Your task to perform on an android device: What's the weather? Image 0: 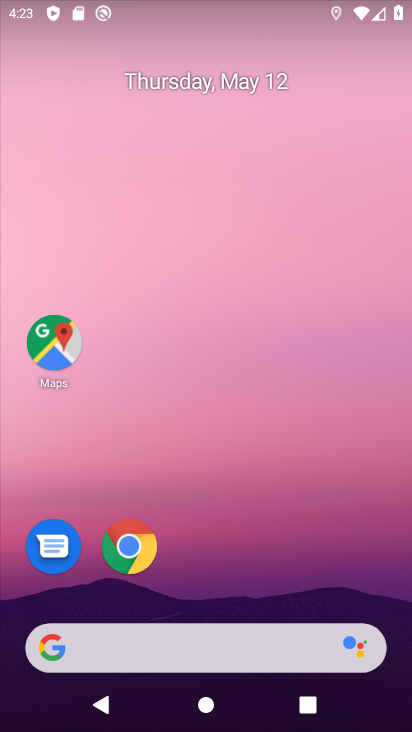
Step 0: drag from (290, 498) to (253, 31)
Your task to perform on an android device: What's the weather? Image 1: 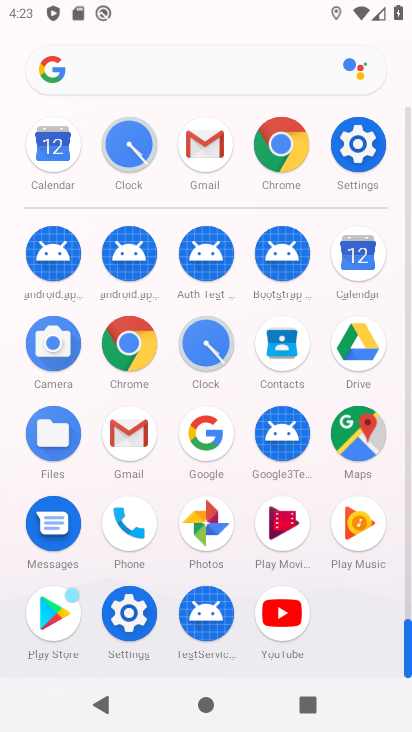
Step 1: drag from (8, 445) to (11, 175)
Your task to perform on an android device: What's the weather? Image 2: 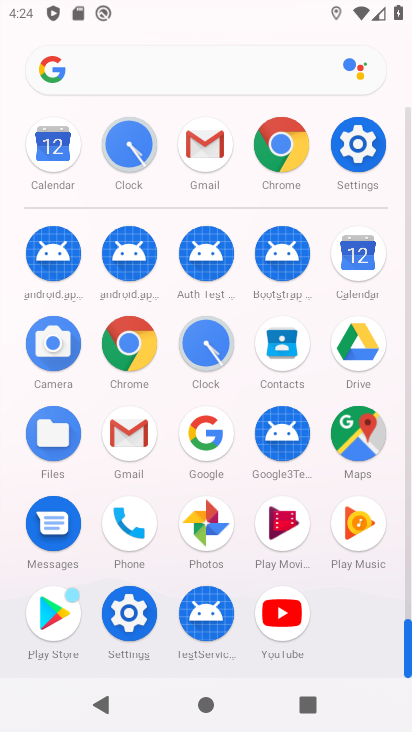
Step 2: click (124, 344)
Your task to perform on an android device: What's the weather? Image 3: 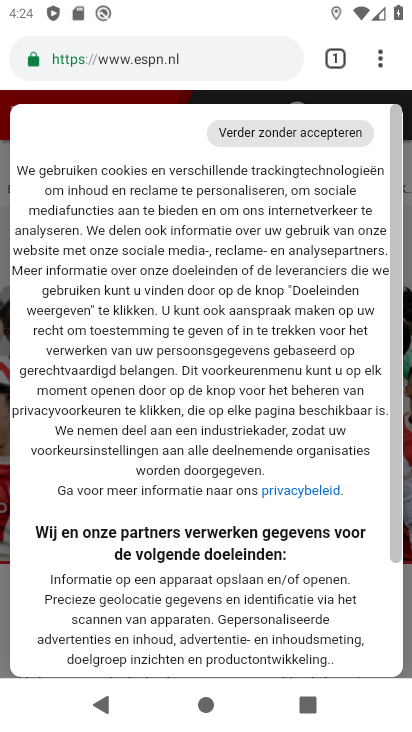
Step 3: click (173, 37)
Your task to perform on an android device: What's the weather? Image 4: 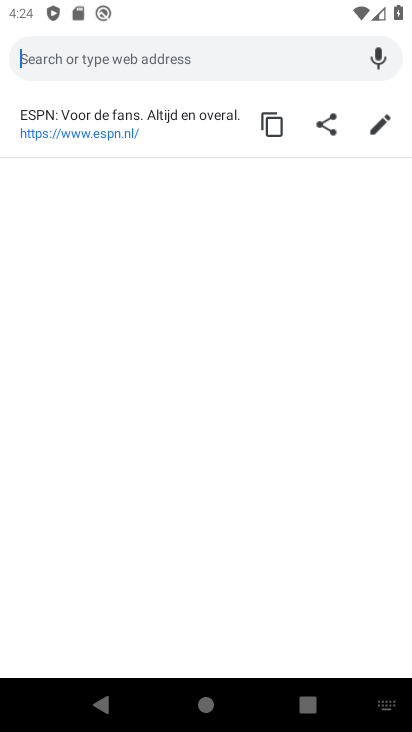
Step 4: type "What's the weather?"
Your task to perform on an android device: What's the weather? Image 5: 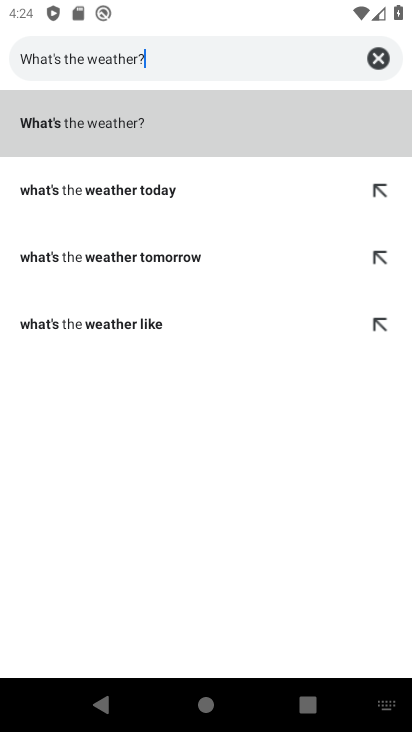
Step 5: click (108, 131)
Your task to perform on an android device: What's the weather? Image 6: 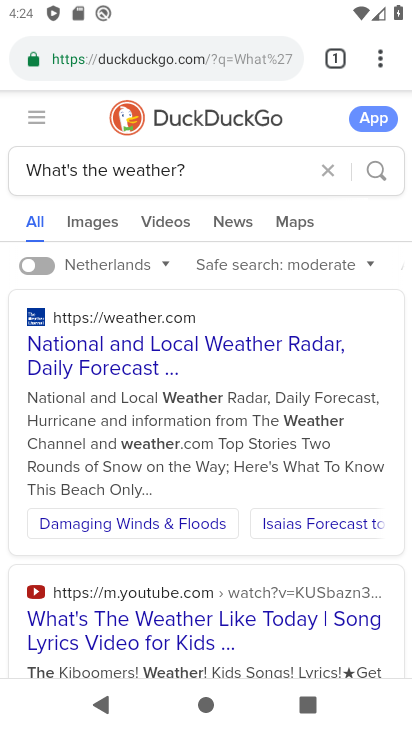
Step 6: click (215, 221)
Your task to perform on an android device: What's the weather? Image 7: 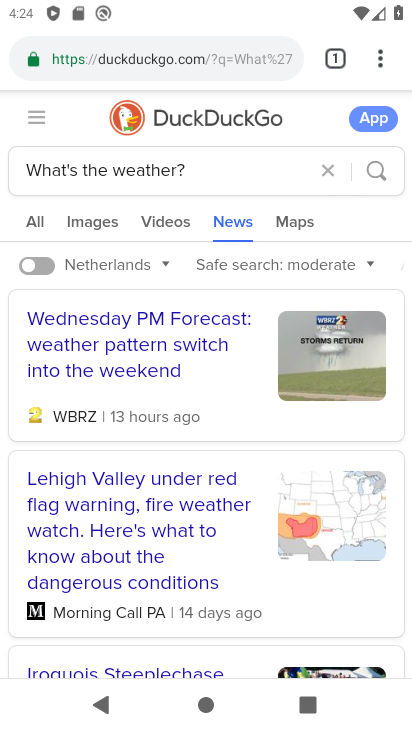
Step 7: task complete